Your task to perform on an android device: Toggle the flashlight Image 0: 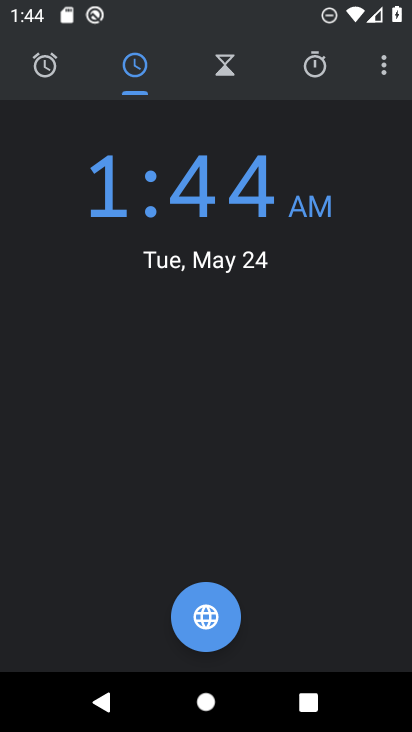
Step 0: drag from (0, 0) to (208, 443)
Your task to perform on an android device: Toggle the flashlight Image 1: 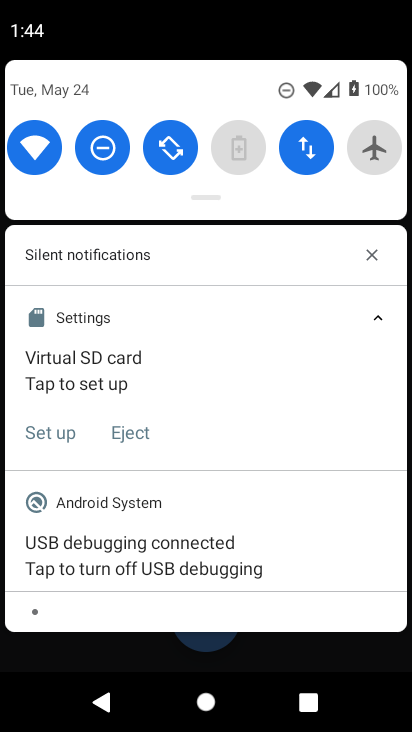
Step 1: task complete